Your task to perform on an android device: Open Android settings Image 0: 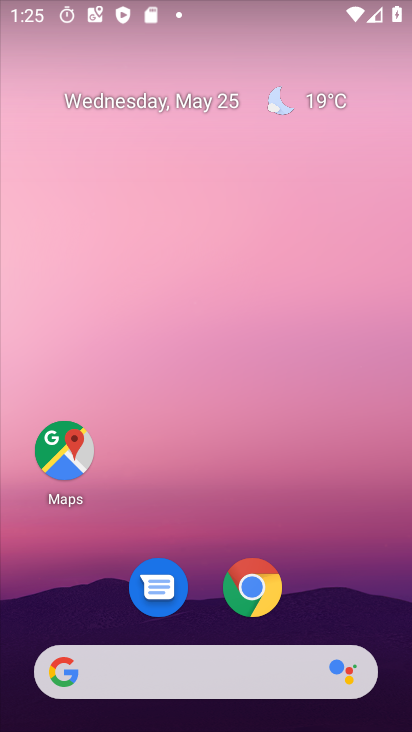
Step 0: drag from (207, 723) to (206, 170)
Your task to perform on an android device: Open Android settings Image 1: 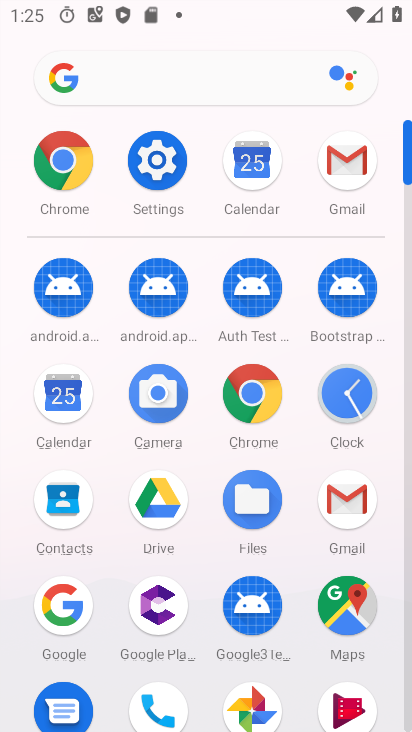
Step 1: click (162, 164)
Your task to perform on an android device: Open Android settings Image 2: 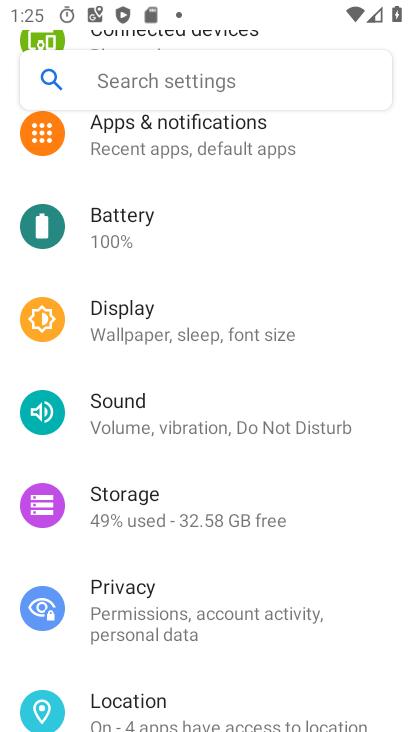
Step 2: task complete